Your task to perform on an android device: Open Yahoo.com Image 0: 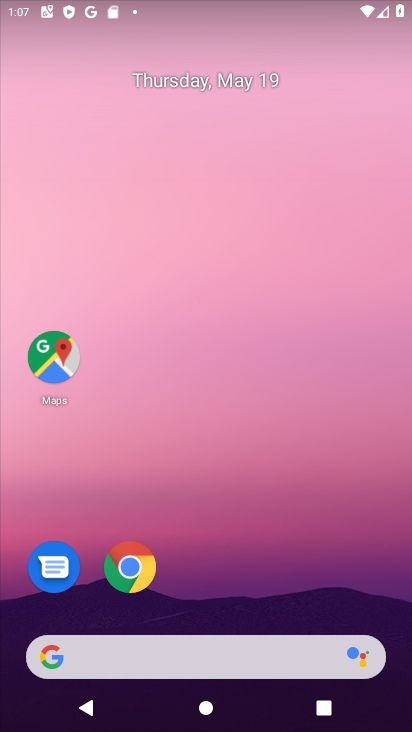
Step 0: drag from (307, 544) to (275, 29)
Your task to perform on an android device: Open Yahoo.com Image 1: 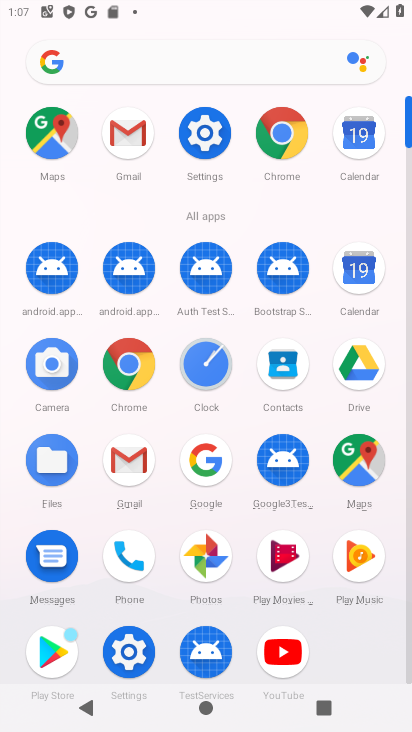
Step 1: click (301, 126)
Your task to perform on an android device: Open Yahoo.com Image 2: 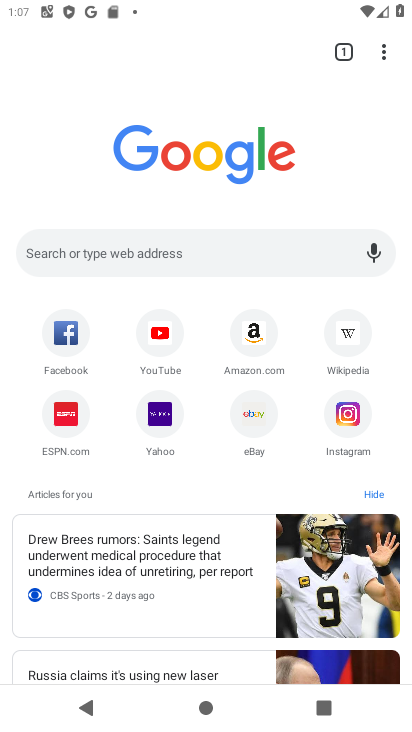
Step 2: click (163, 416)
Your task to perform on an android device: Open Yahoo.com Image 3: 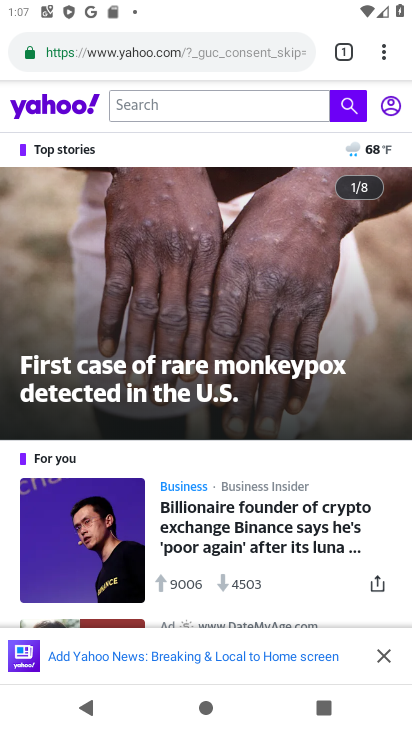
Step 3: task complete